Your task to perform on an android device: turn on javascript in the chrome app Image 0: 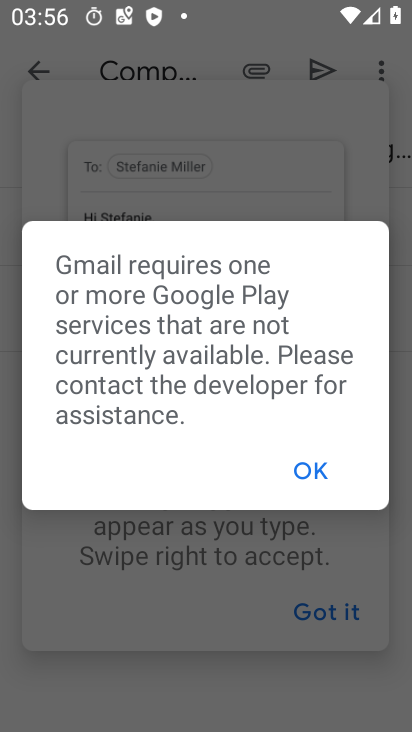
Step 0: press home button
Your task to perform on an android device: turn on javascript in the chrome app Image 1: 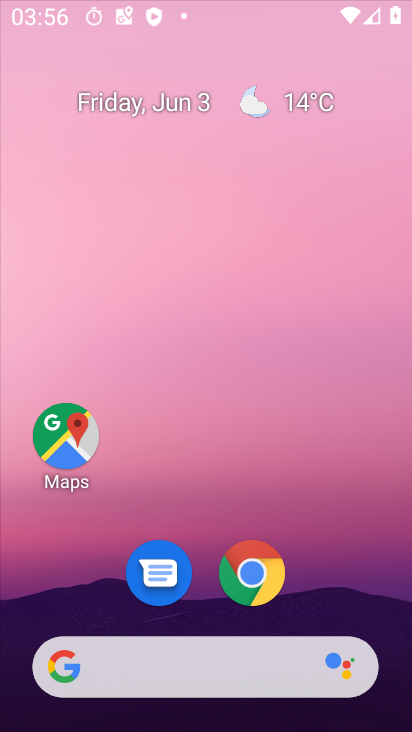
Step 1: drag from (201, 564) to (240, 104)
Your task to perform on an android device: turn on javascript in the chrome app Image 2: 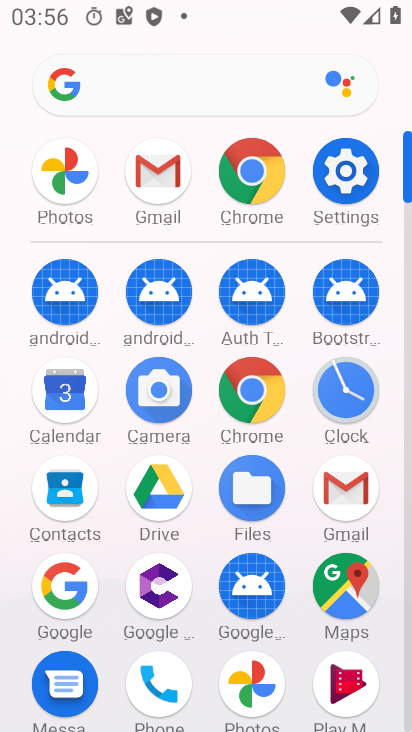
Step 2: click (252, 393)
Your task to perform on an android device: turn on javascript in the chrome app Image 3: 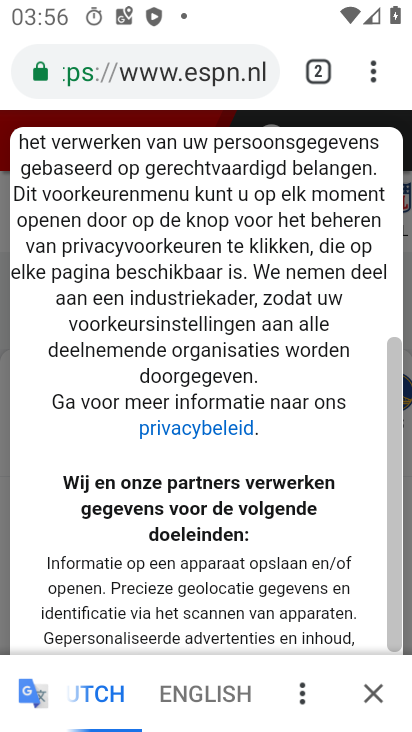
Step 3: drag from (376, 71) to (210, 560)
Your task to perform on an android device: turn on javascript in the chrome app Image 4: 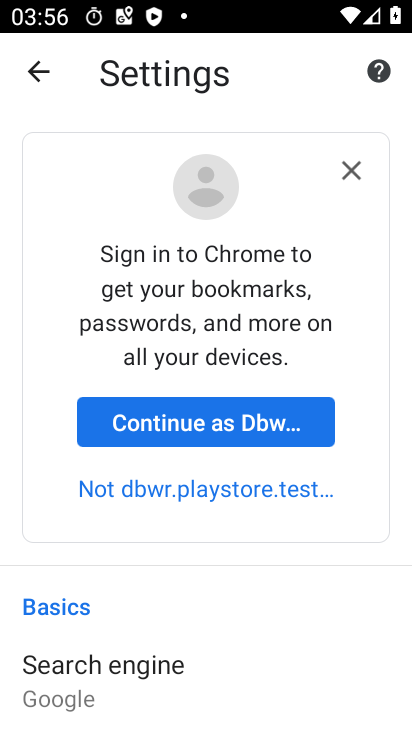
Step 4: drag from (229, 693) to (283, 62)
Your task to perform on an android device: turn on javascript in the chrome app Image 5: 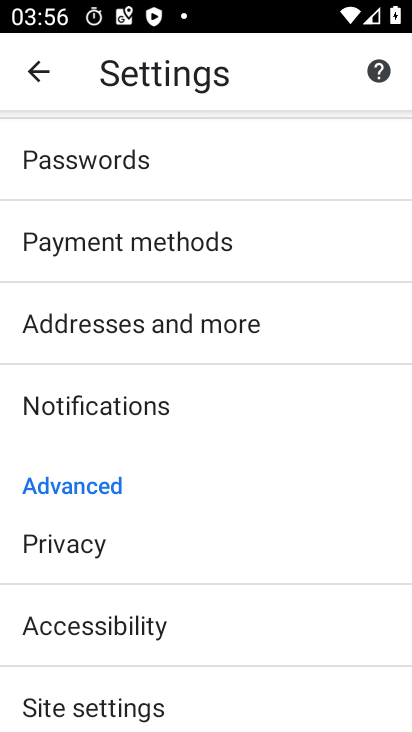
Step 5: click (177, 703)
Your task to perform on an android device: turn on javascript in the chrome app Image 6: 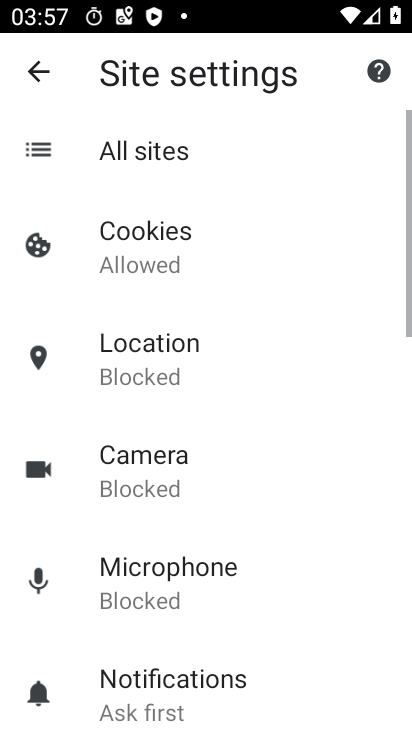
Step 6: drag from (226, 709) to (266, 161)
Your task to perform on an android device: turn on javascript in the chrome app Image 7: 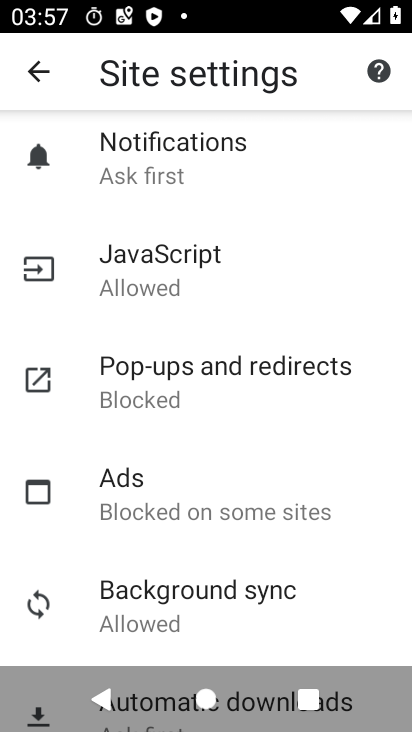
Step 7: click (227, 285)
Your task to perform on an android device: turn on javascript in the chrome app Image 8: 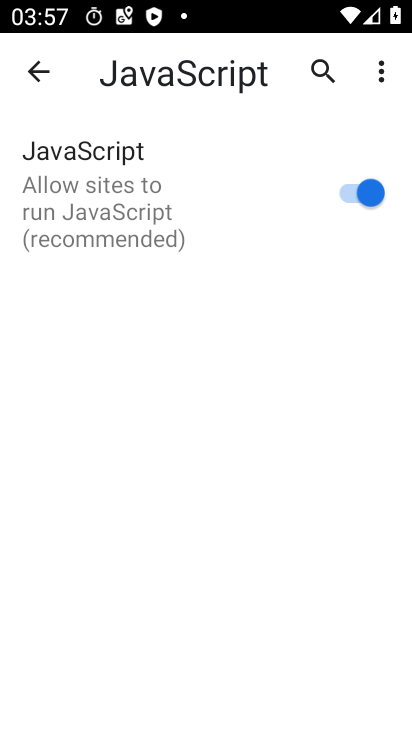
Step 8: task complete